Your task to perform on an android device: Show the shopping cart on walmart. Search for jbl charge 4 on walmart, select the first entry, add it to the cart, then select checkout. Image 0: 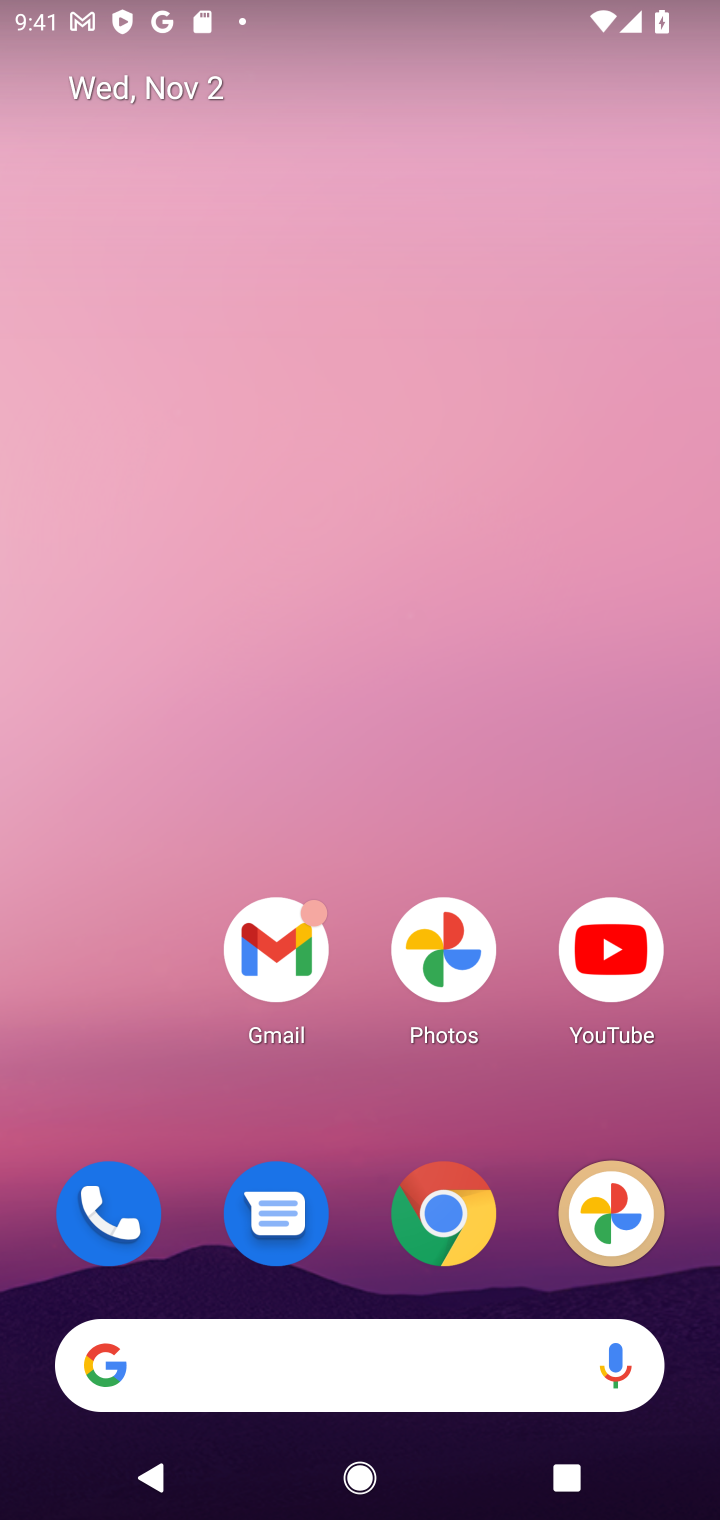
Step 0: click (442, 1215)
Your task to perform on an android device: Show the shopping cart on walmart. Search for jbl charge 4 on walmart, select the first entry, add it to the cart, then select checkout. Image 1: 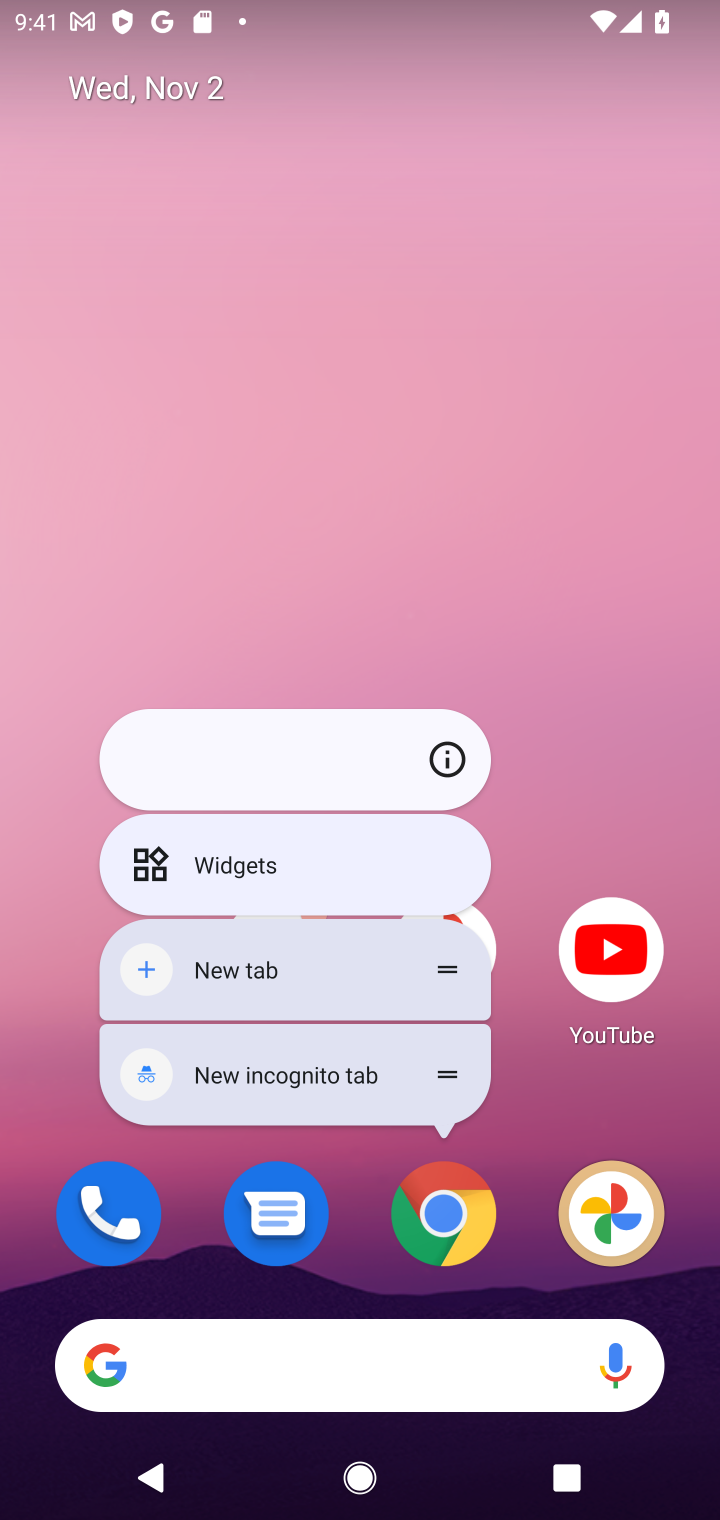
Step 1: click (446, 1224)
Your task to perform on an android device: Show the shopping cart on walmart. Search for jbl charge 4 on walmart, select the first entry, add it to the cart, then select checkout. Image 2: 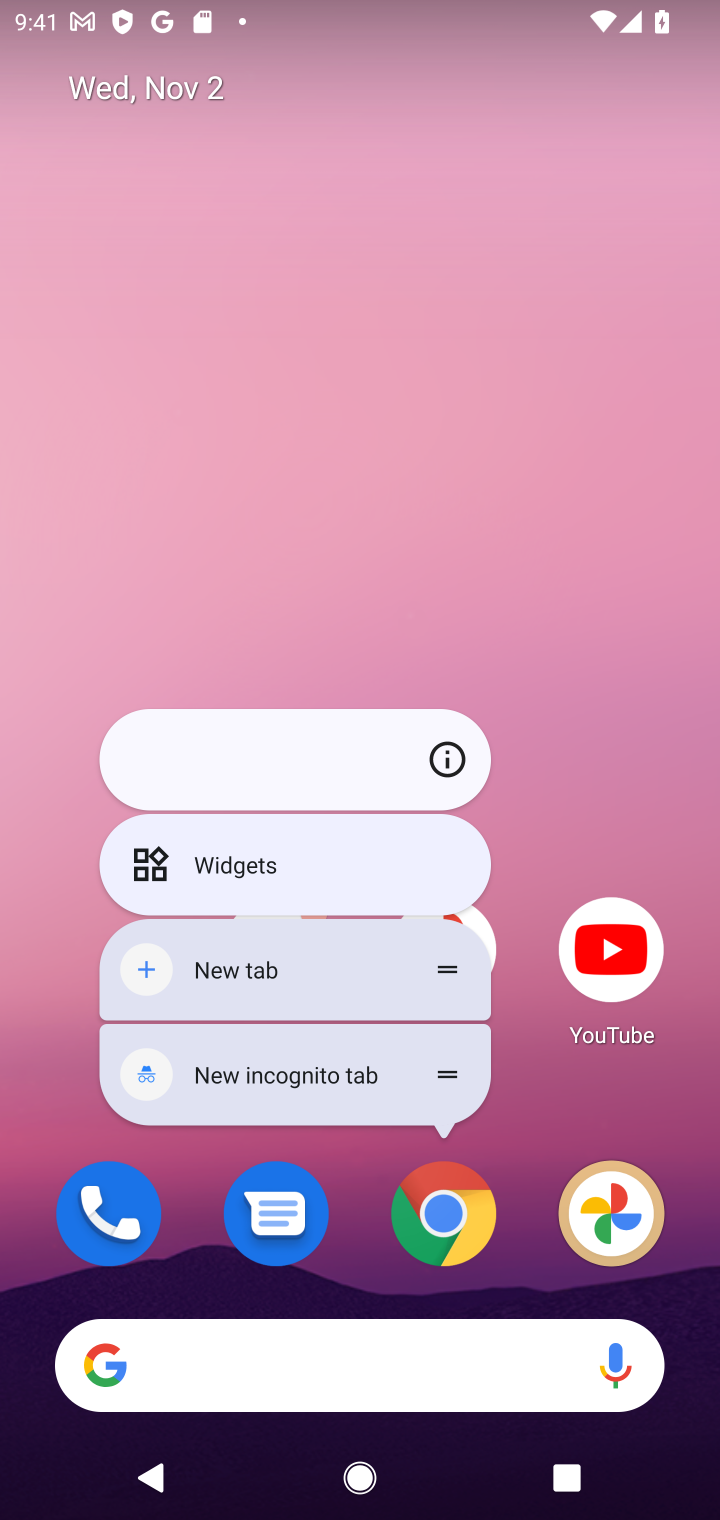
Step 2: click (450, 1234)
Your task to perform on an android device: Show the shopping cart on walmart. Search for jbl charge 4 on walmart, select the first entry, add it to the cart, then select checkout. Image 3: 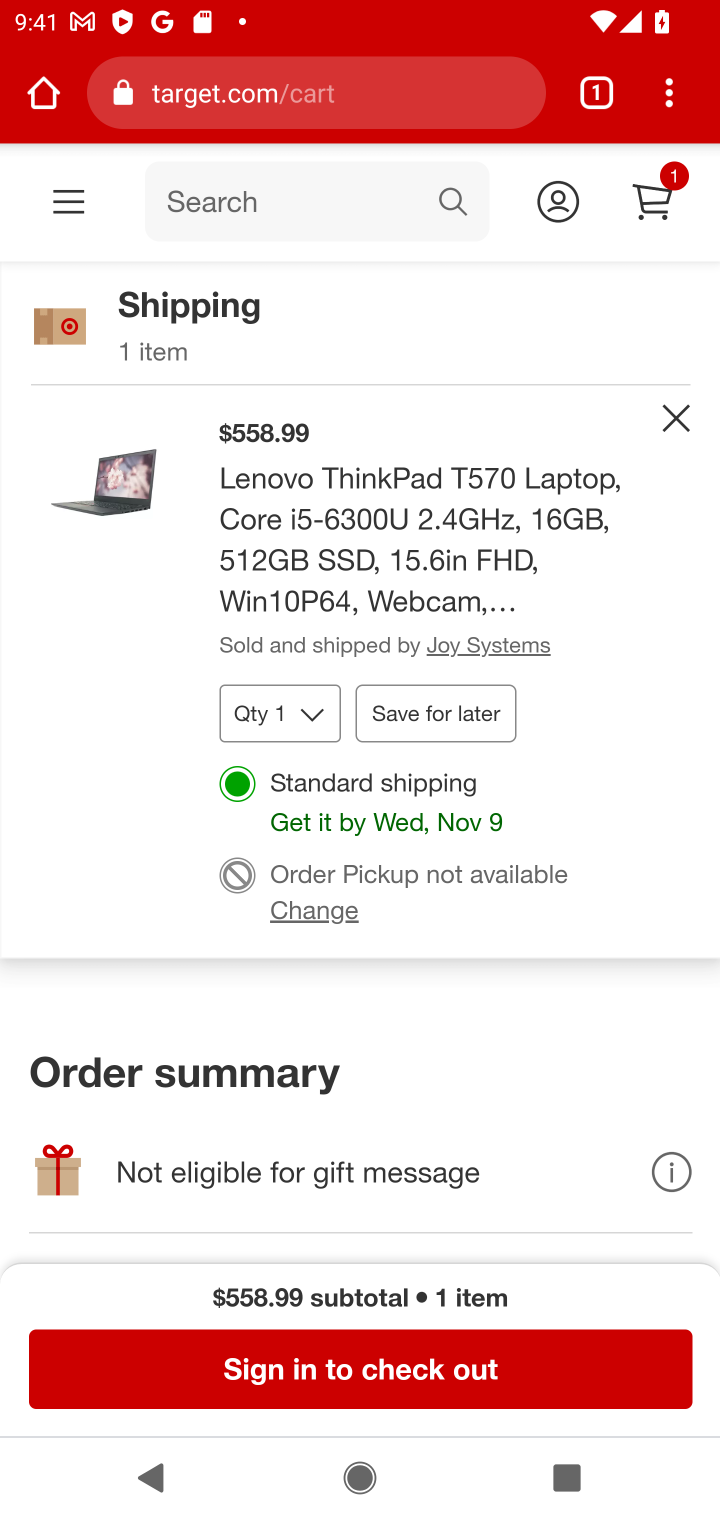
Step 3: click (321, 101)
Your task to perform on an android device: Show the shopping cart on walmart. Search for jbl charge 4 on walmart, select the first entry, add it to the cart, then select checkout. Image 4: 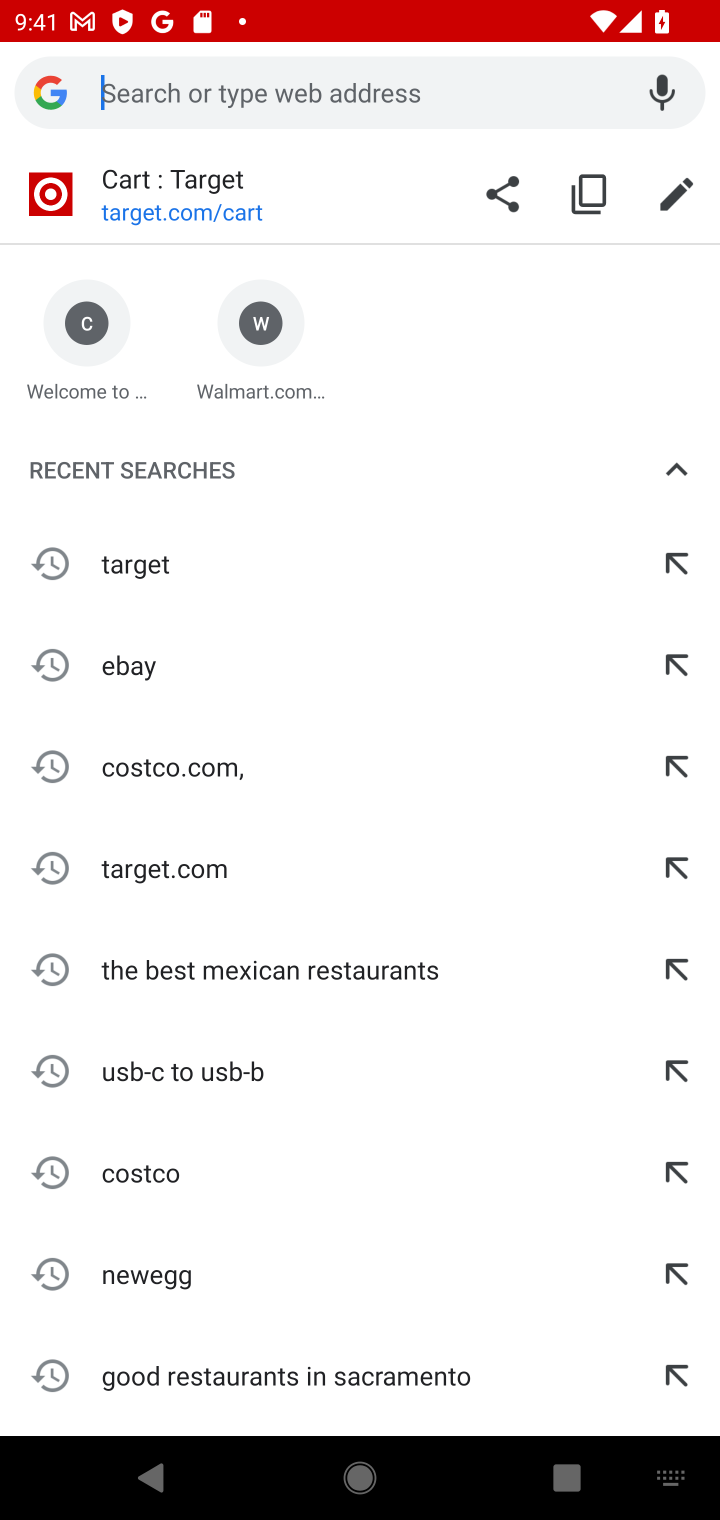
Step 4: type "walmart"
Your task to perform on an android device: Show the shopping cart on walmart. Search for jbl charge 4 on walmart, select the first entry, add it to the cart, then select checkout. Image 5: 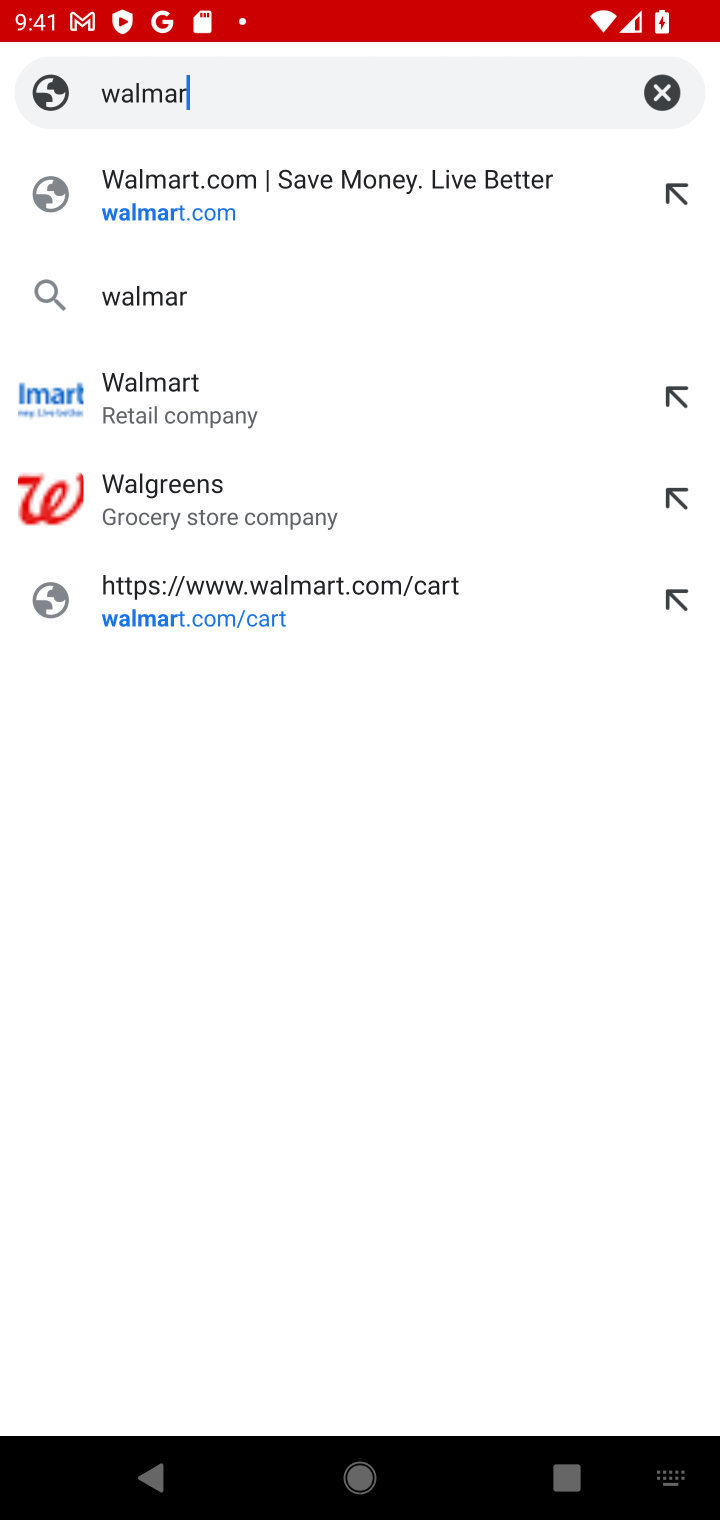
Step 5: type ""
Your task to perform on an android device: Show the shopping cart on walmart. Search for jbl charge 4 on walmart, select the first entry, add it to the cart, then select checkout. Image 6: 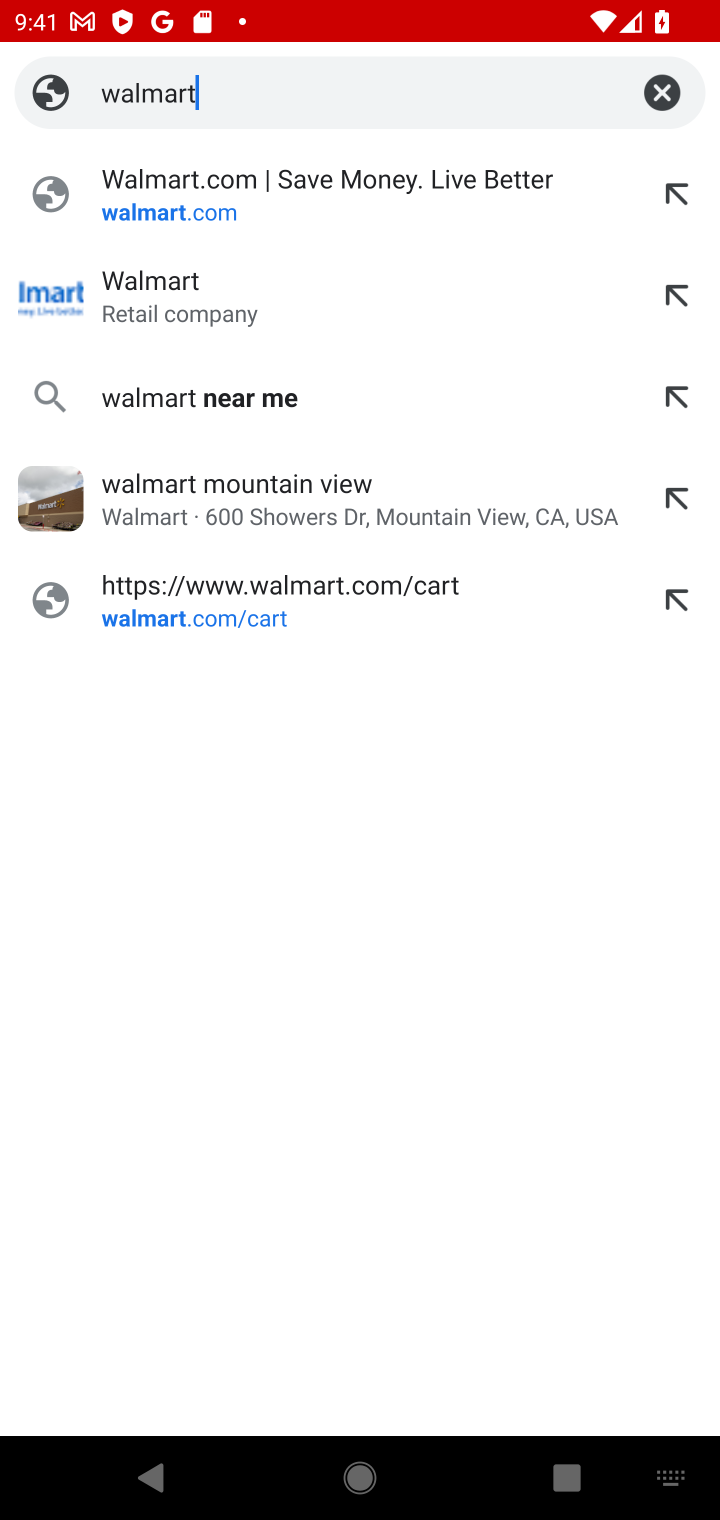
Step 6: click (198, 200)
Your task to perform on an android device: Show the shopping cart on walmart. Search for jbl charge 4 on walmart, select the first entry, add it to the cart, then select checkout. Image 7: 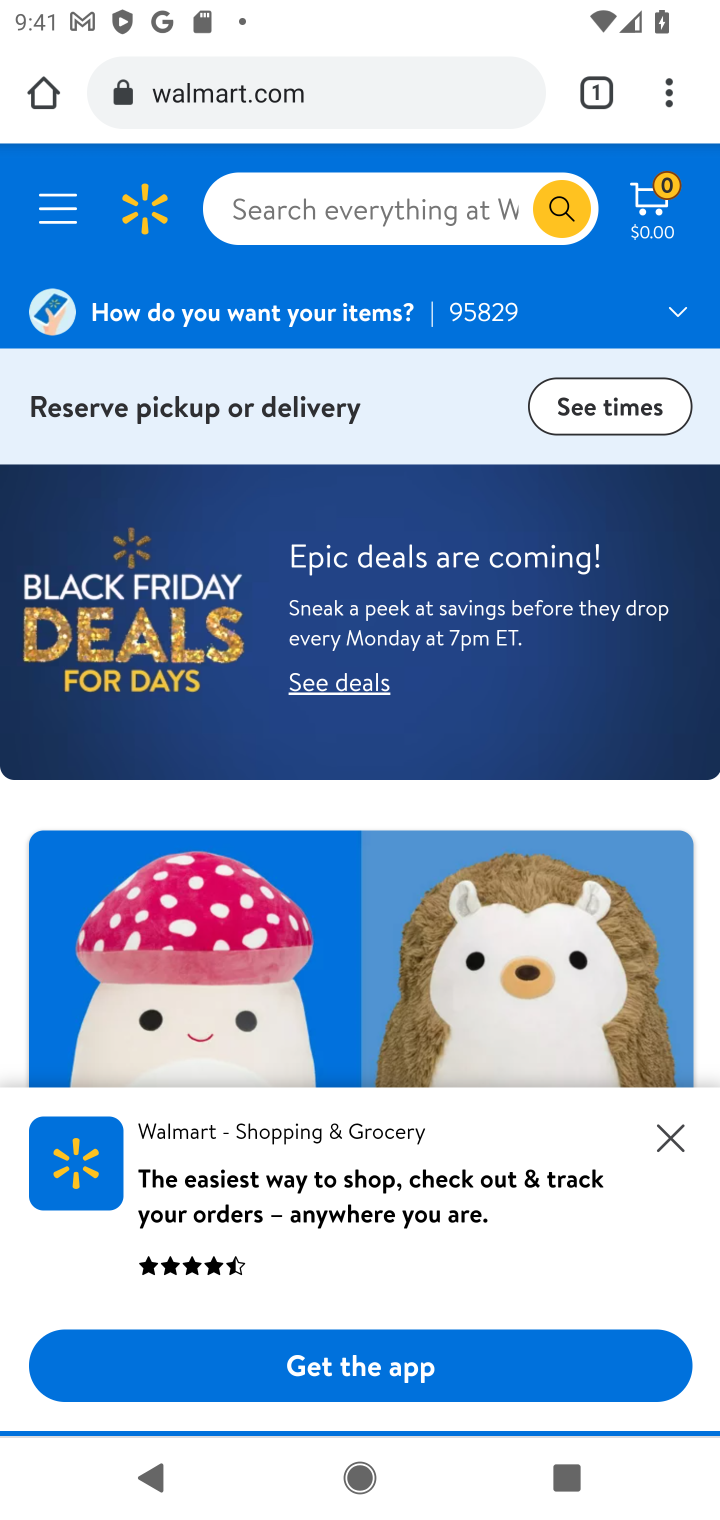
Step 7: click (398, 210)
Your task to perform on an android device: Show the shopping cart on walmart. Search for jbl charge 4 on walmart, select the first entry, add it to the cart, then select checkout. Image 8: 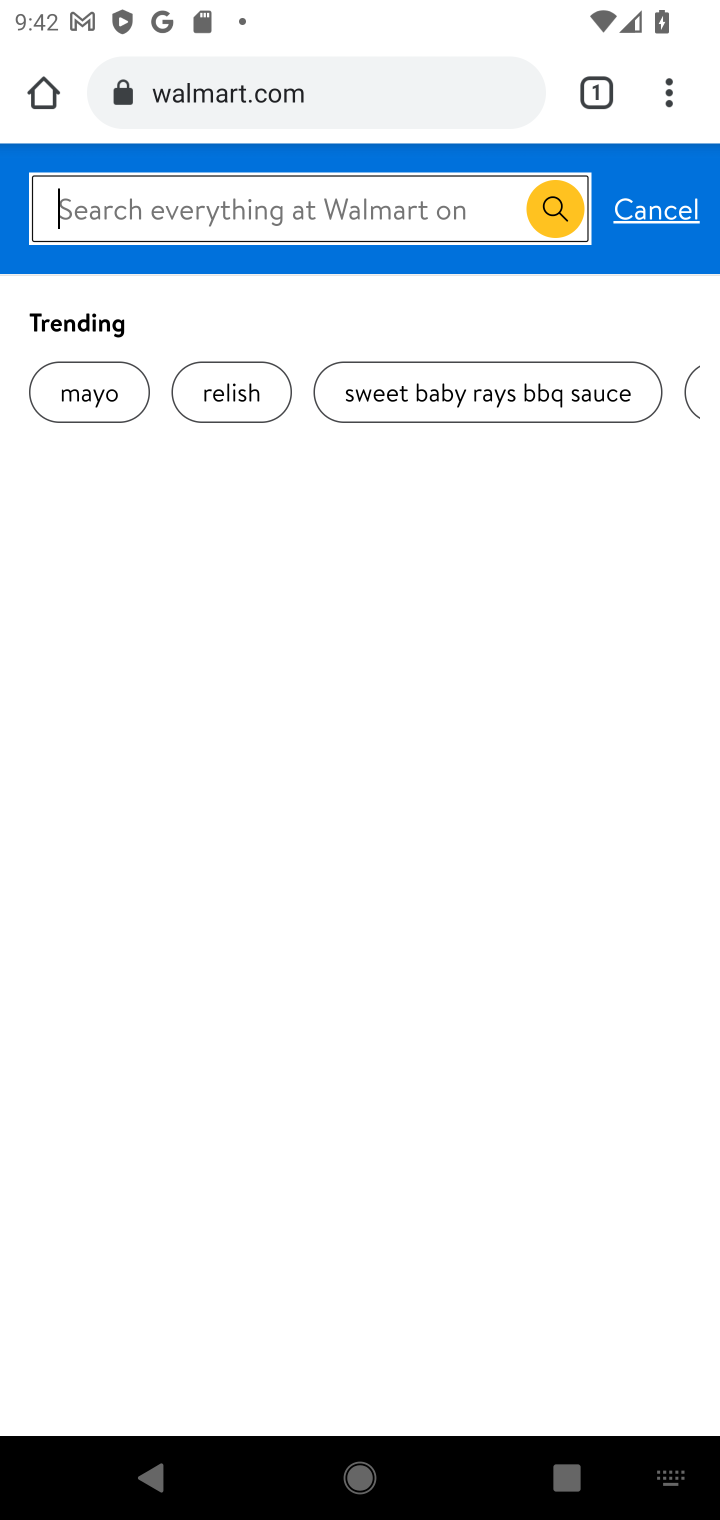
Step 8: type "jbl charge 4"
Your task to perform on an android device: Show the shopping cart on walmart. Search for jbl charge 4 on walmart, select the first entry, add it to the cart, then select checkout. Image 9: 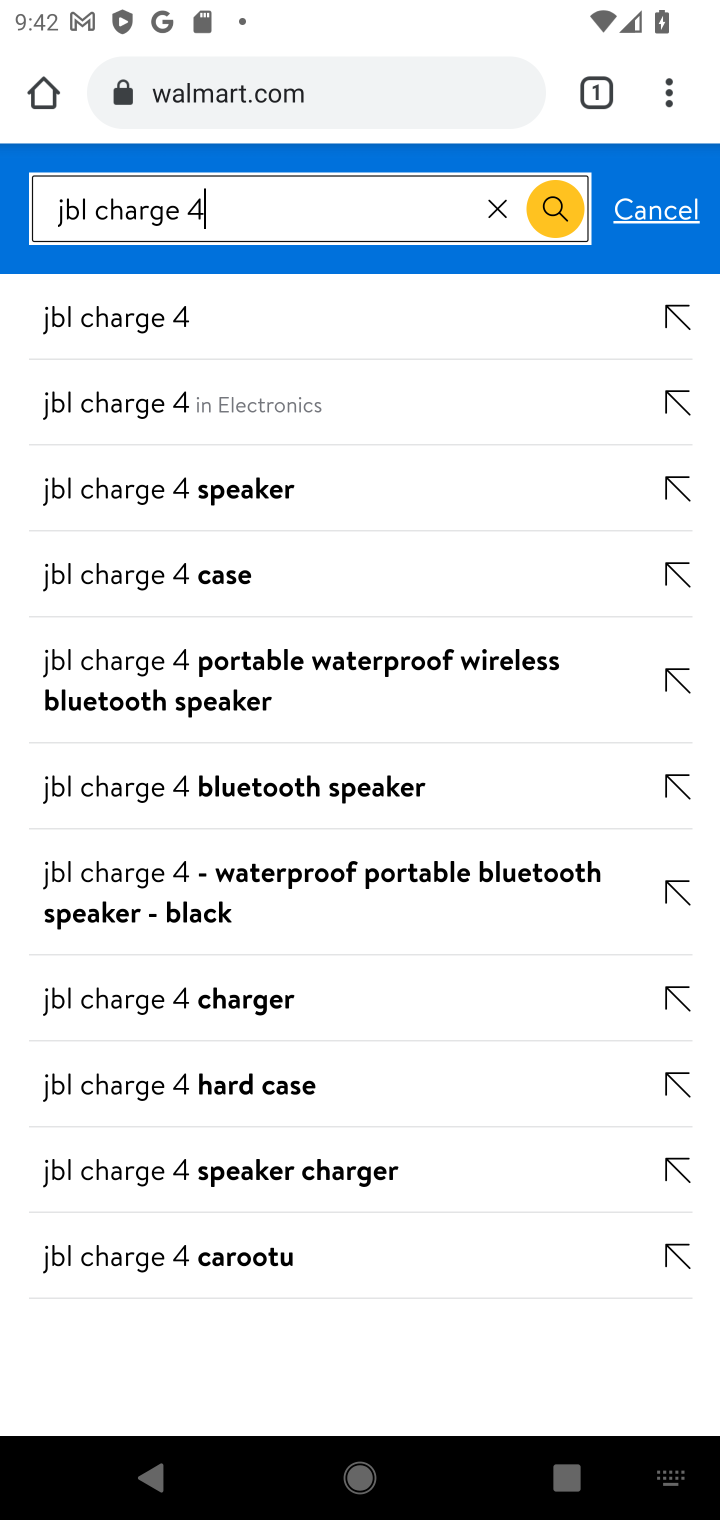
Step 9: click (197, 492)
Your task to perform on an android device: Show the shopping cart on walmart. Search for jbl charge 4 on walmart, select the first entry, add it to the cart, then select checkout. Image 10: 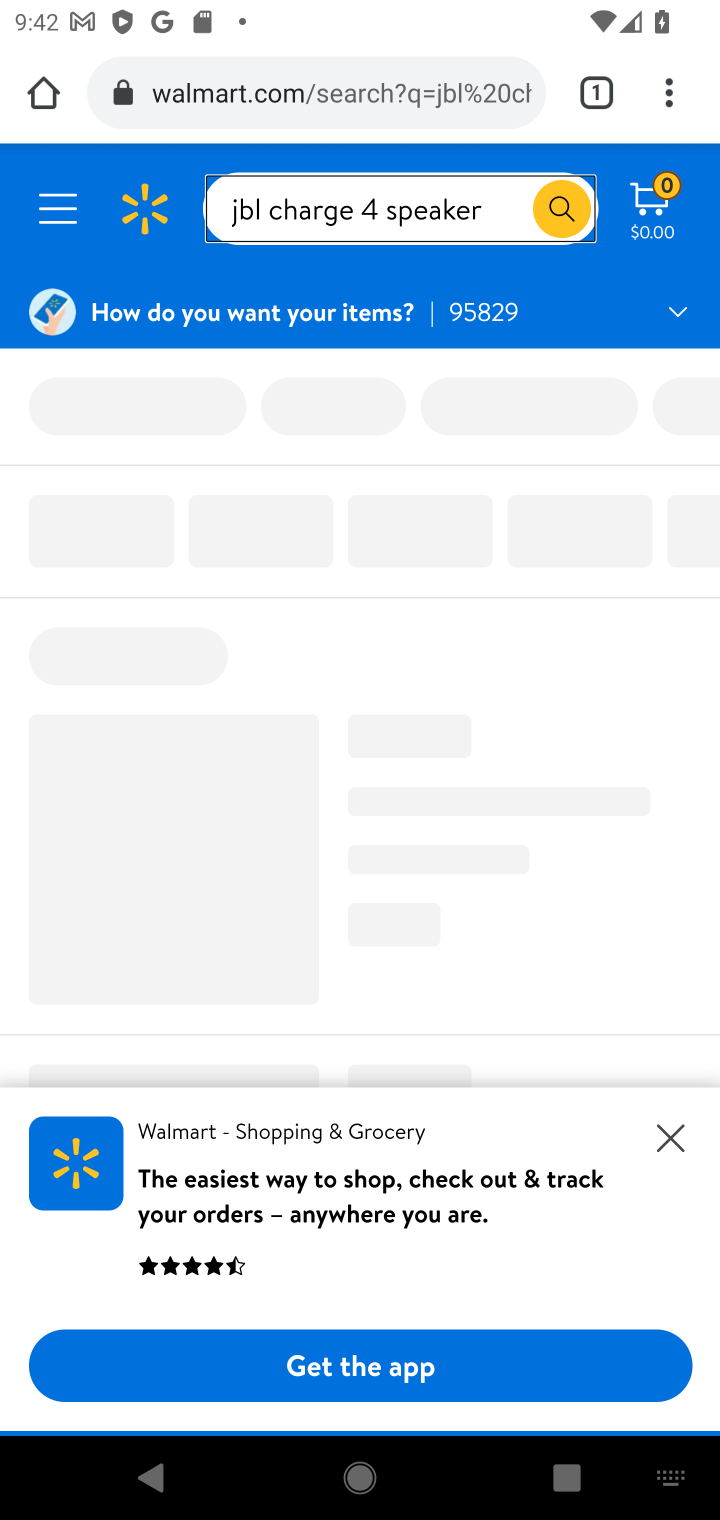
Step 10: click (672, 1117)
Your task to perform on an android device: Show the shopping cart on walmart. Search for jbl charge 4 on walmart, select the first entry, add it to the cart, then select checkout. Image 11: 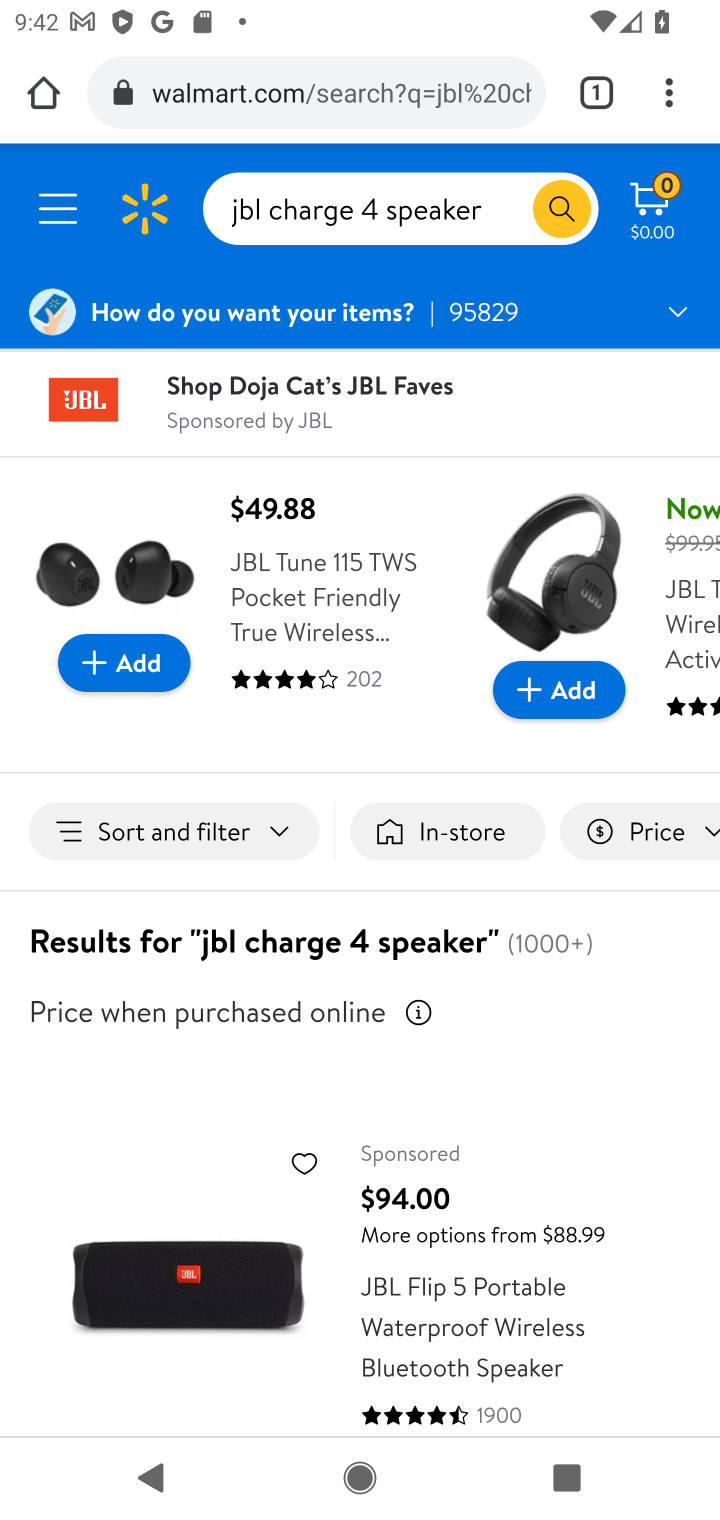
Step 11: drag from (670, 1224) to (708, 373)
Your task to perform on an android device: Show the shopping cart on walmart. Search for jbl charge 4 on walmart, select the first entry, add it to the cart, then select checkout. Image 12: 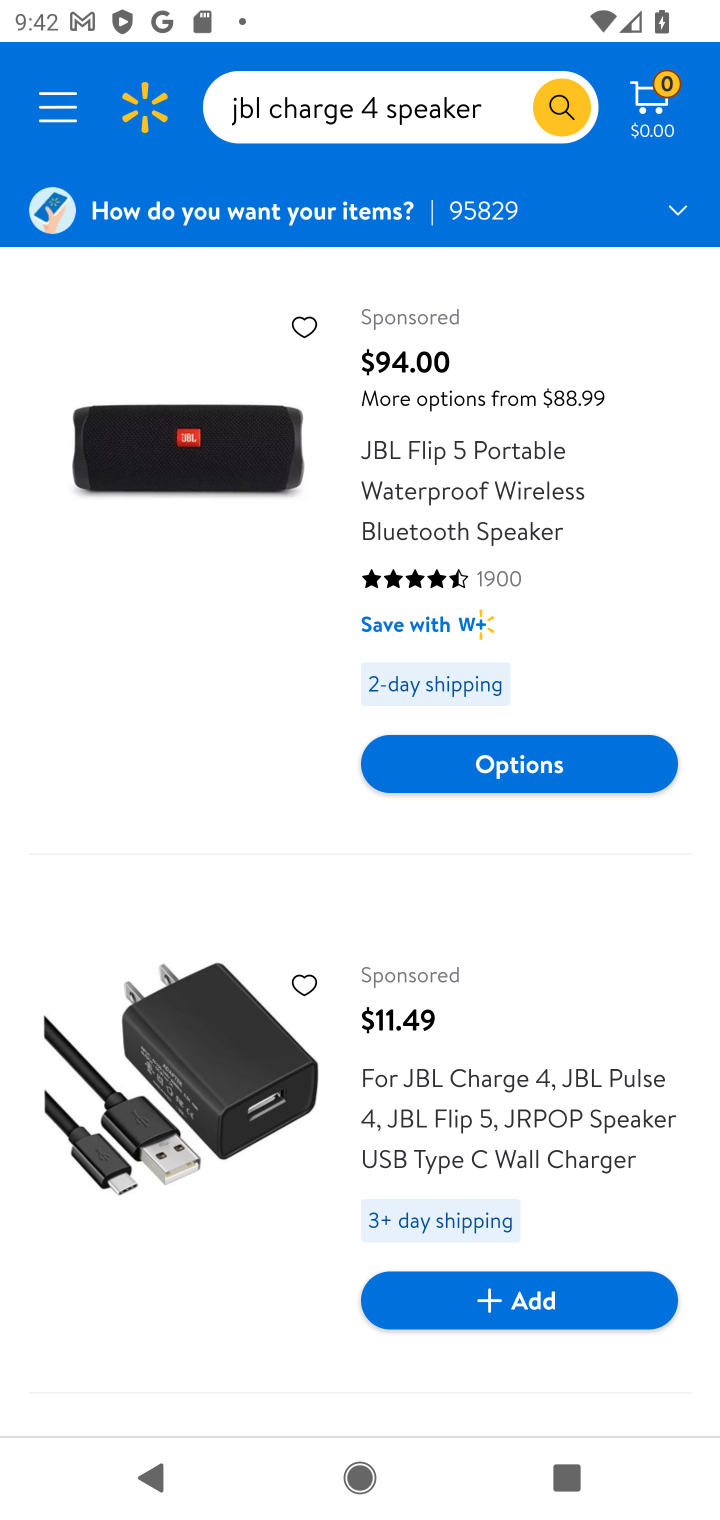
Step 12: drag from (604, 1130) to (670, 448)
Your task to perform on an android device: Show the shopping cart on walmart. Search for jbl charge 4 on walmart, select the first entry, add it to the cart, then select checkout. Image 13: 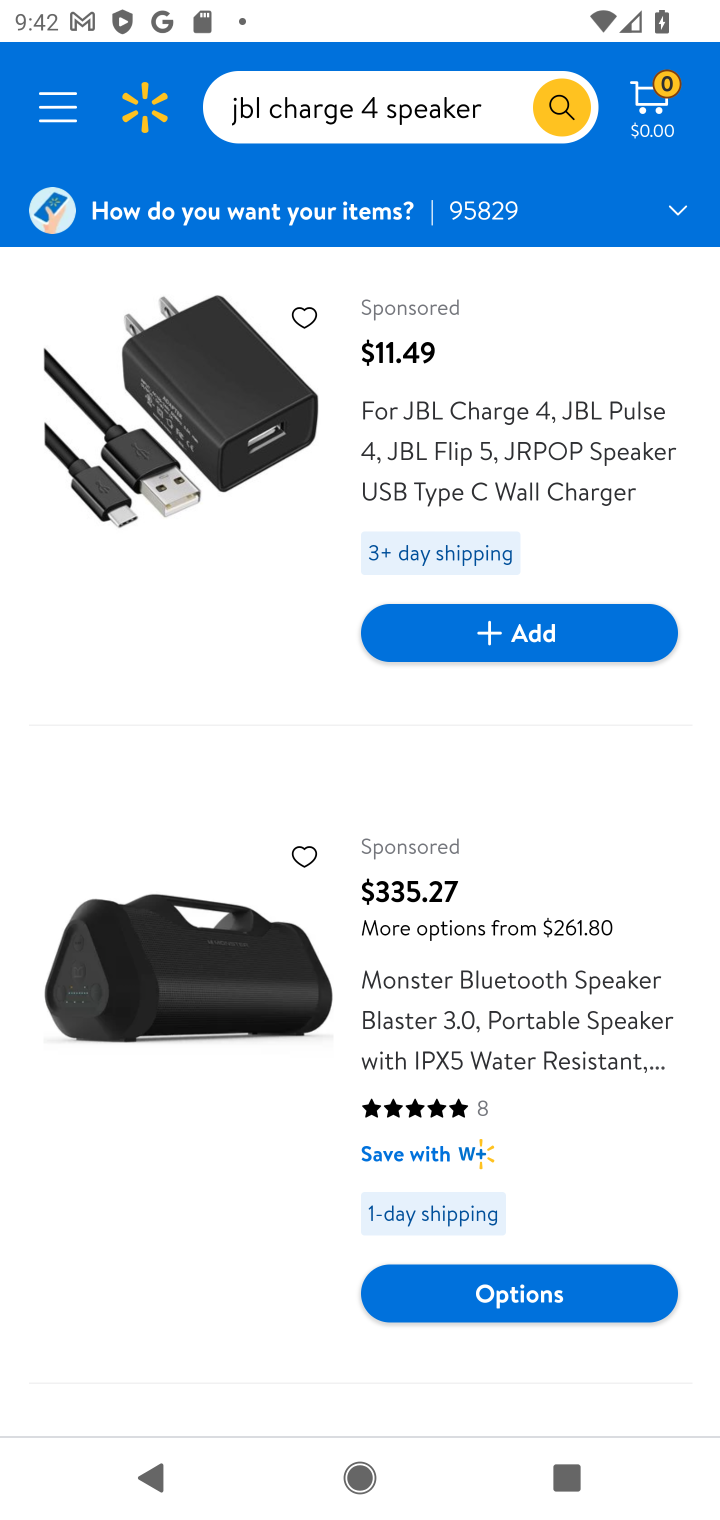
Step 13: drag from (590, 1182) to (576, 415)
Your task to perform on an android device: Show the shopping cart on walmart. Search for jbl charge 4 on walmart, select the first entry, add it to the cart, then select checkout. Image 14: 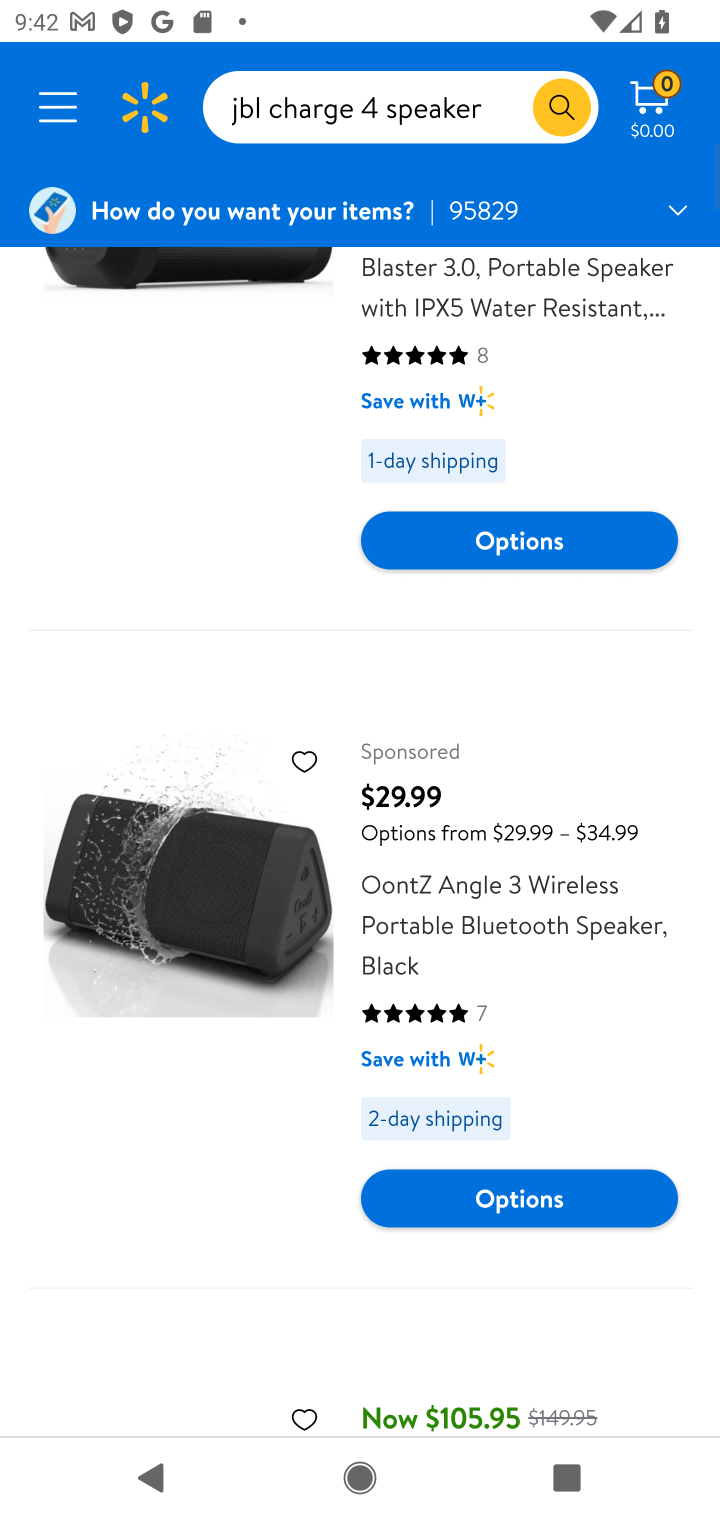
Step 14: drag from (473, 1146) to (517, 511)
Your task to perform on an android device: Show the shopping cart on walmart. Search for jbl charge 4 on walmart, select the first entry, add it to the cart, then select checkout. Image 15: 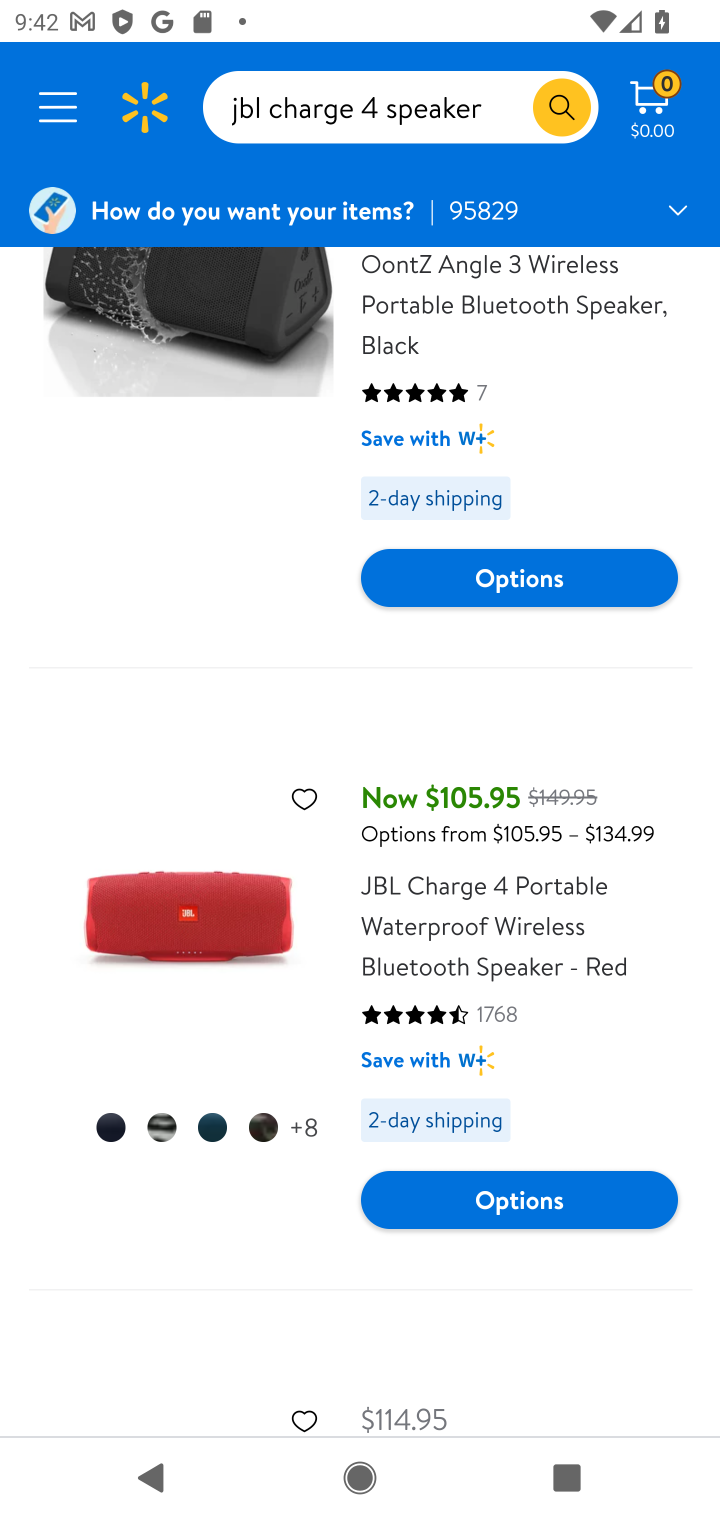
Step 15: click (482, 931)
Your task to perform on an android device: Show the shopping cart on walmart. Search for jbl charge 4 on walmart, select the first entry, add it to the cart, then select checkout. Image 16: 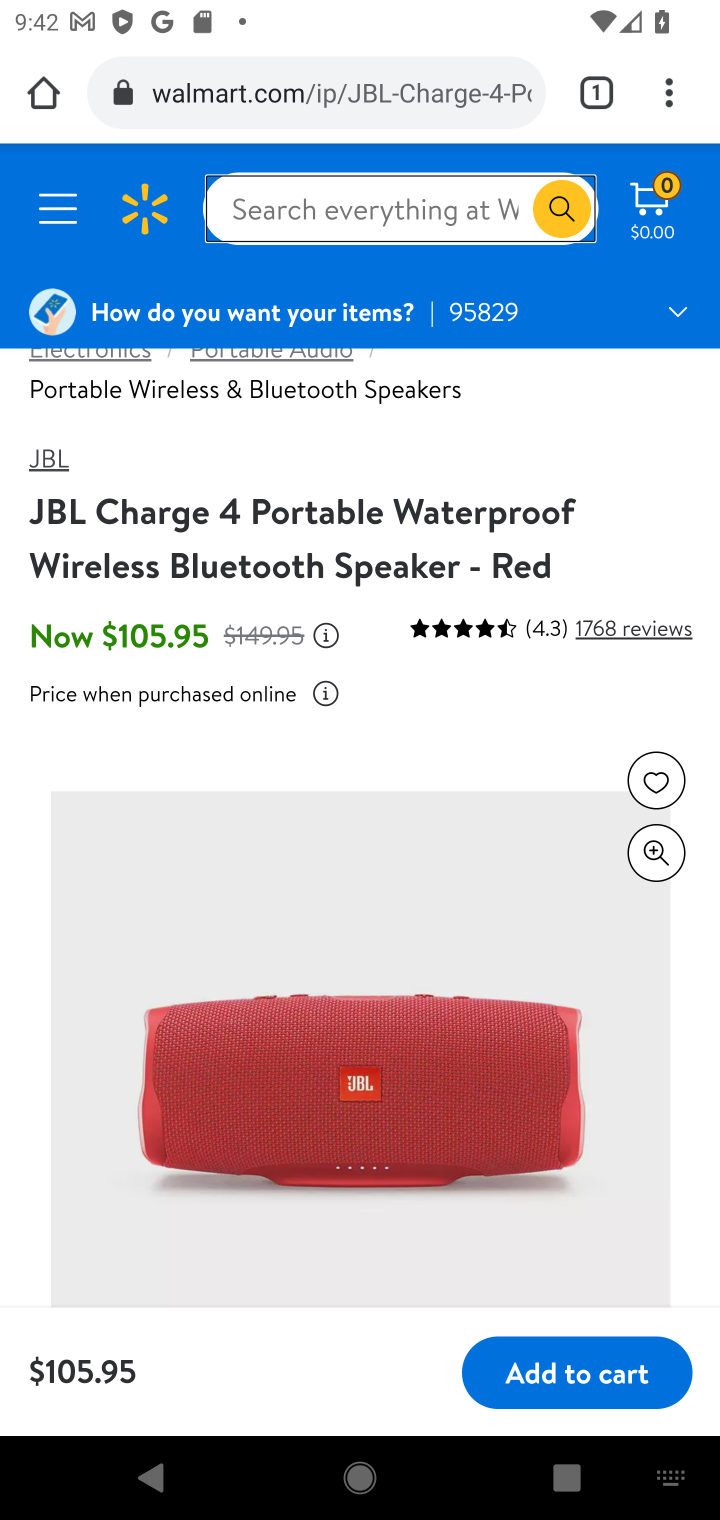
Step 16: click (614, 1388)
Your task to perform on an android device: Show the shopping cart on walmart. Search for jbl charge 4 on walmart, select the first entry, add it to the cart, then select checkout. Image 17: 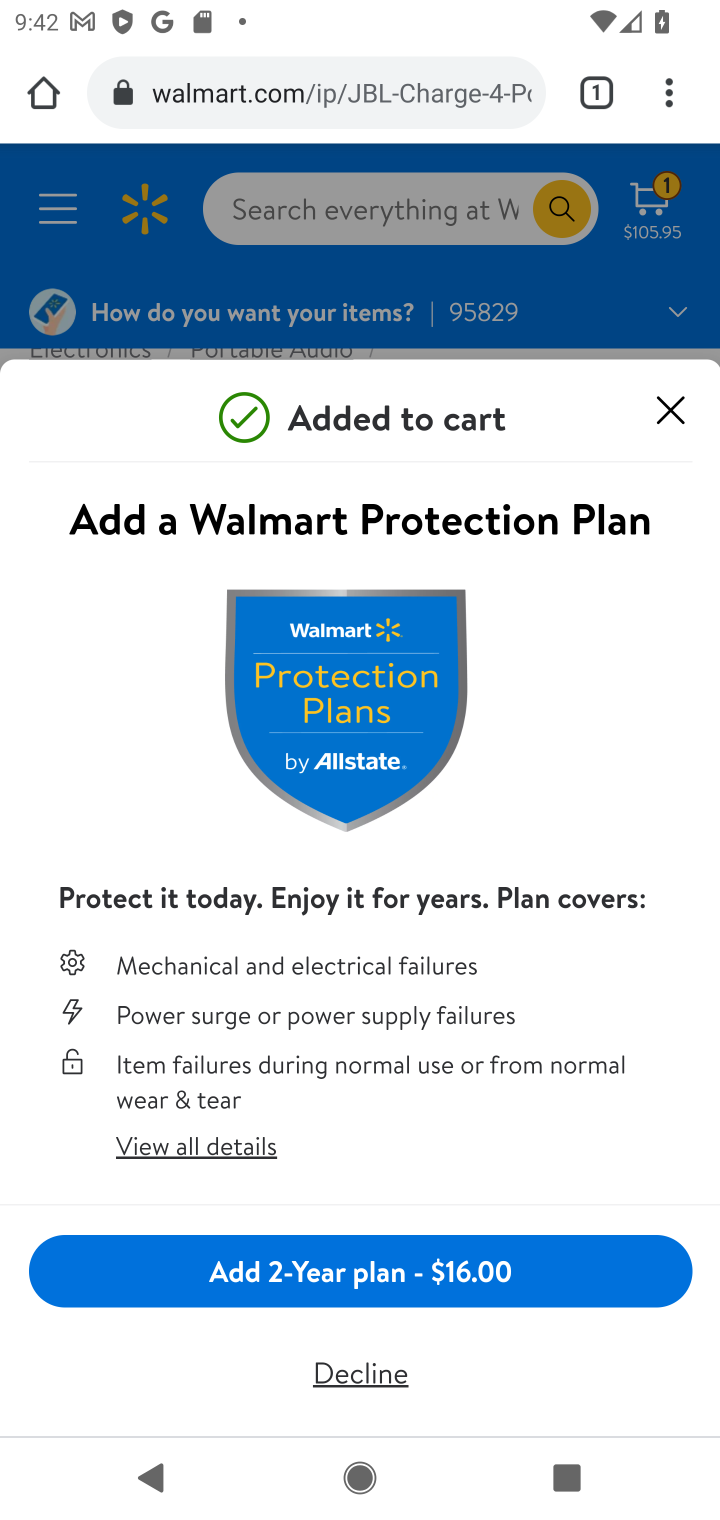
Step 17: click (411, 1378)
Your task to perform on an android device: Show the shopping cart on walmart. Search for jbl charge 4 on walmart, select the first entry, add it to the cart, then select checkout. Image 18: 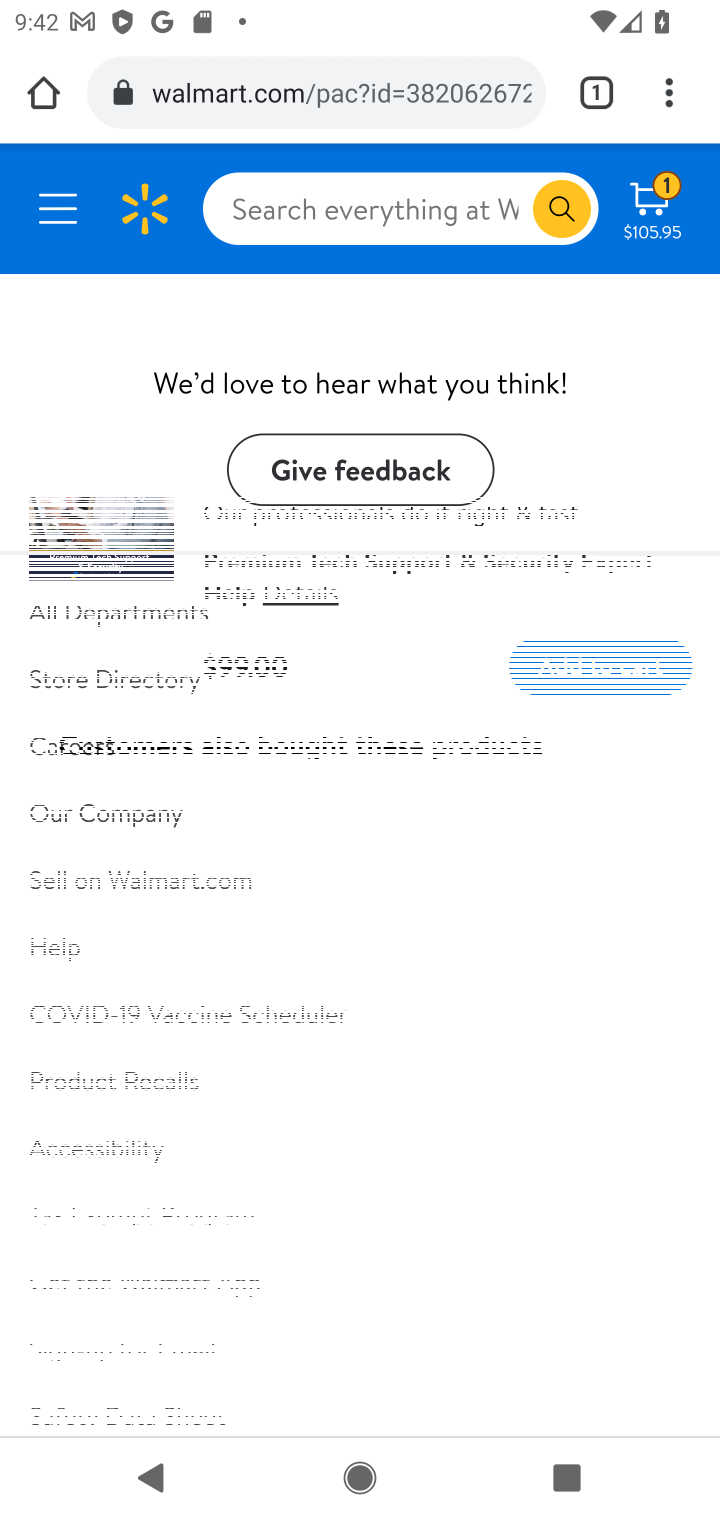
Step 18: click (629, 199)
Your task to perform on an android device: Show the shopping cart on walmart. Search for jbl charge 4 on walmart, select the first entry, add it to the cart, then select checkout. Image 19: 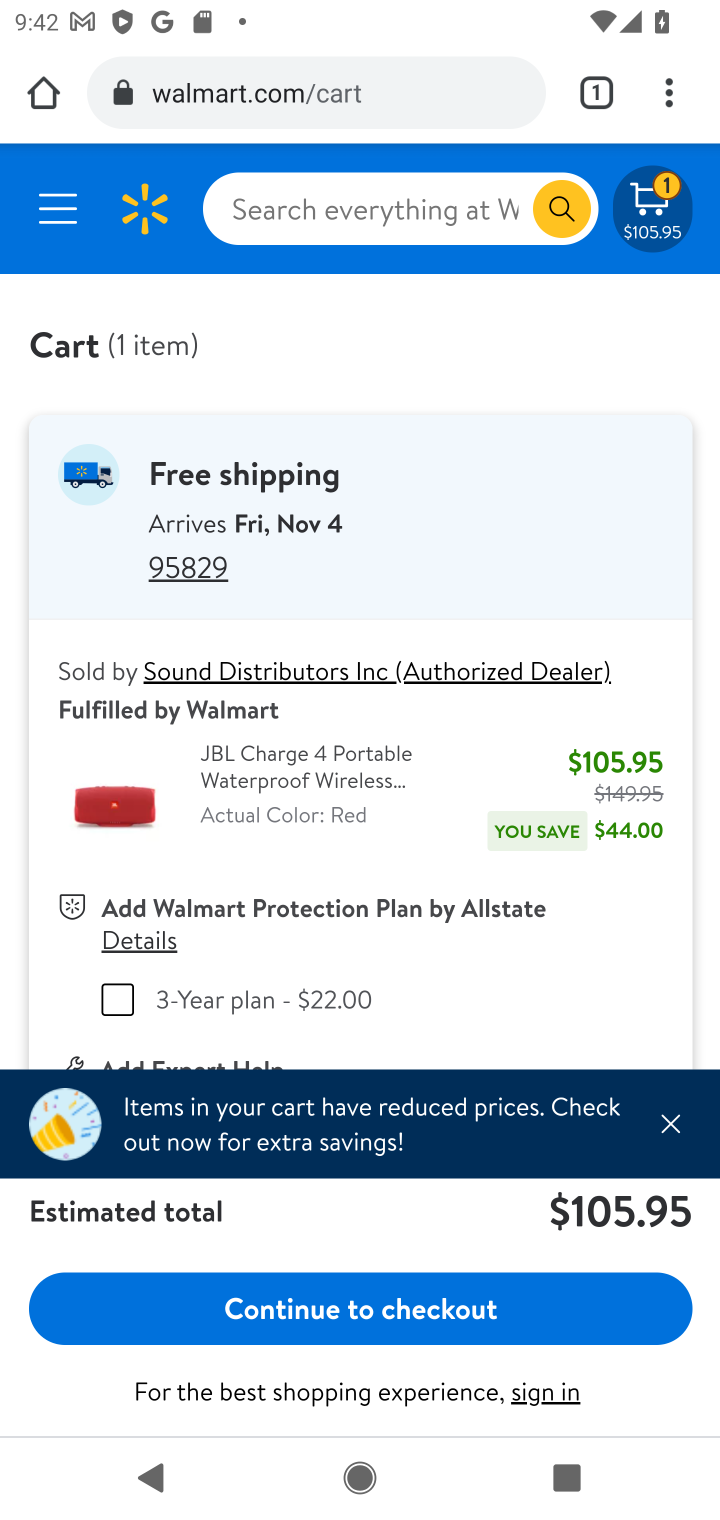
Step 19: click (674, 1121)
Your task to perform on an android device: Show the shopping cart on walmart. Search for jbl charge 4 on walmart, select the first entry, add it to the cart, then select checkout. Image 20: 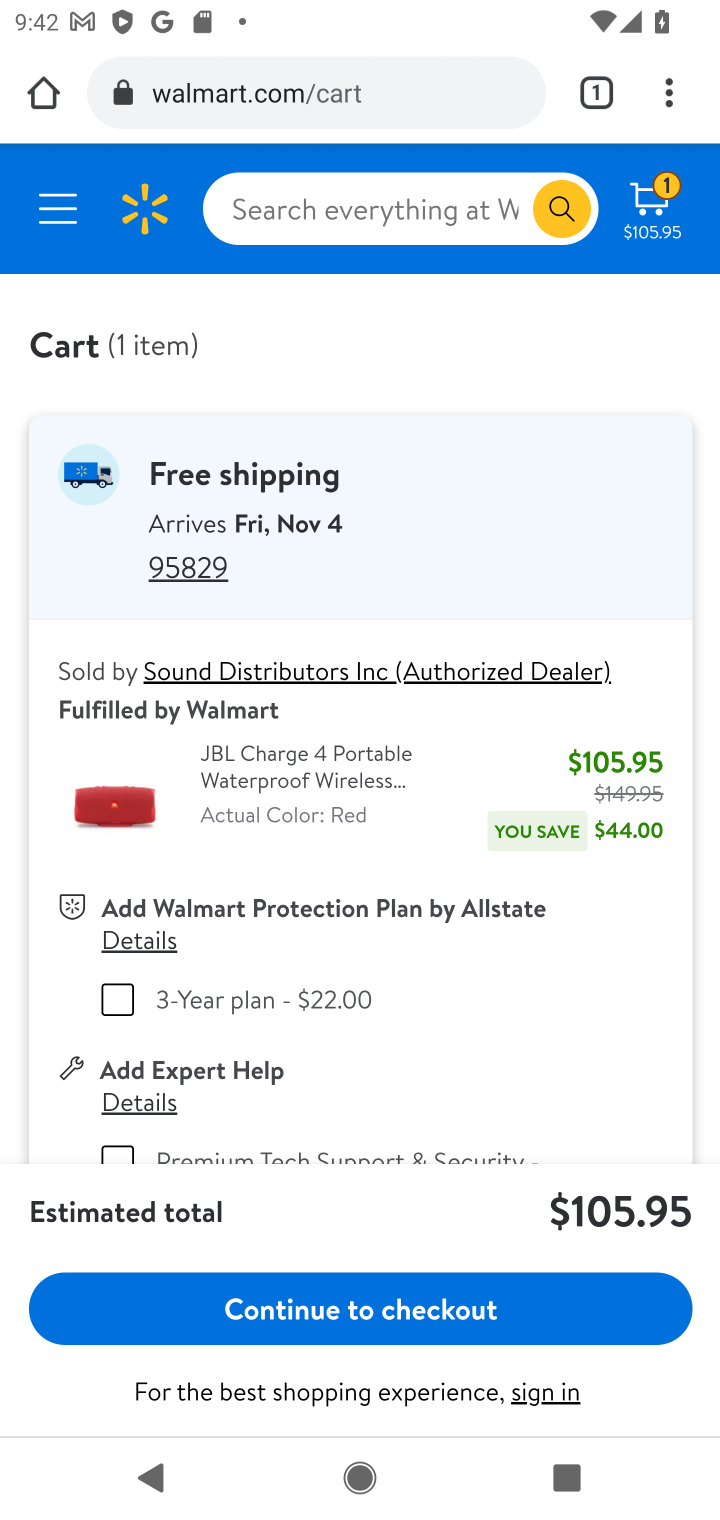
Step 20: click (599, 1302)
Your task to perform on an android device: Show the shopping cart on walmart. Search for jbl charge 4 on walmart, select the first entry, add it to the cart, then select checkout. Image 21: 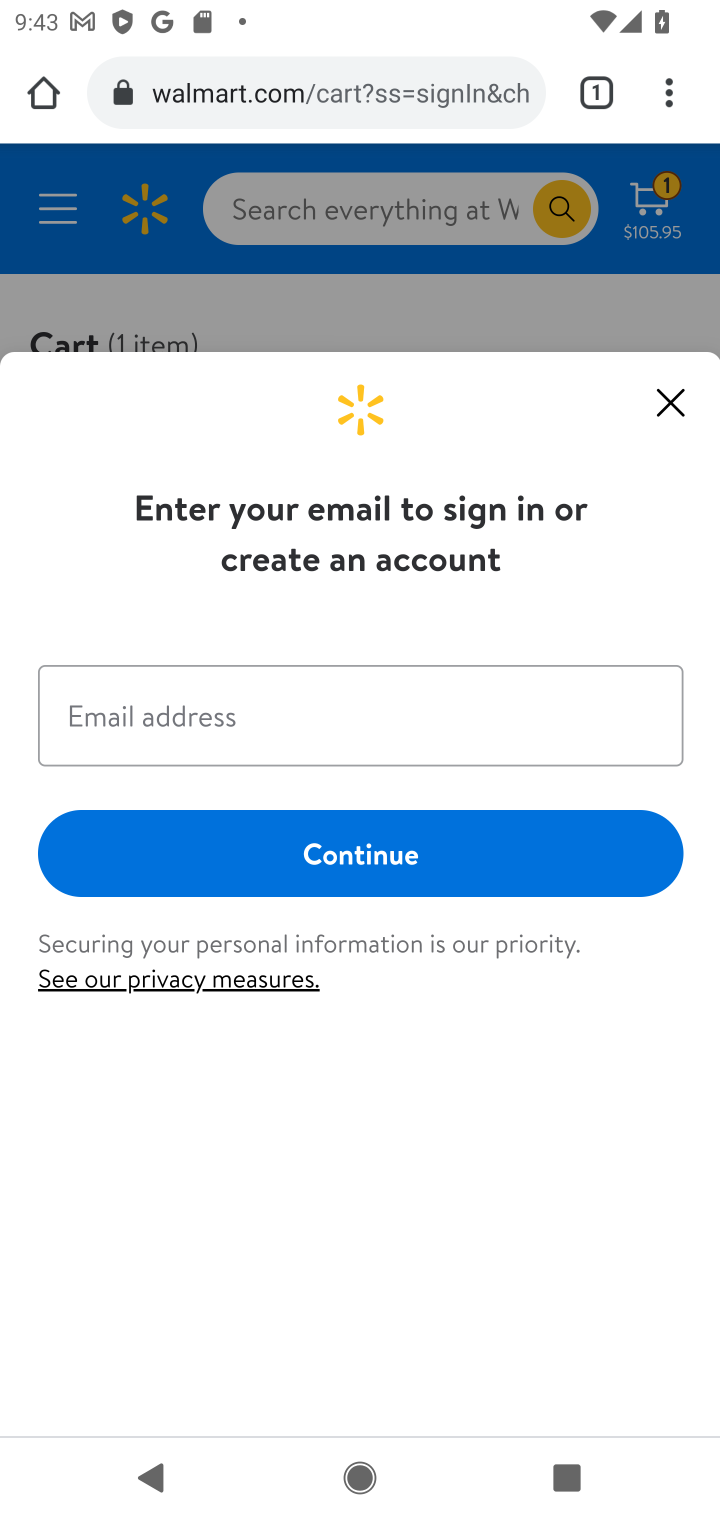
Step 21: task complete